Your task to perform on an android device: Go to CNN.com Image 0: 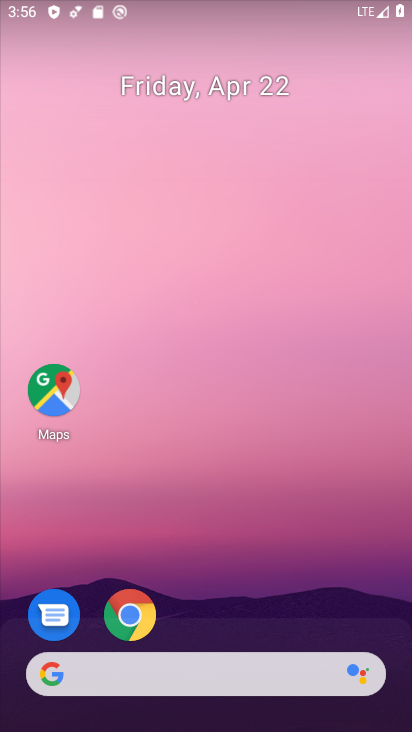
Step 0: click (137, 614)
Your task to perform on an android device: Go to CNN.com Image 1: 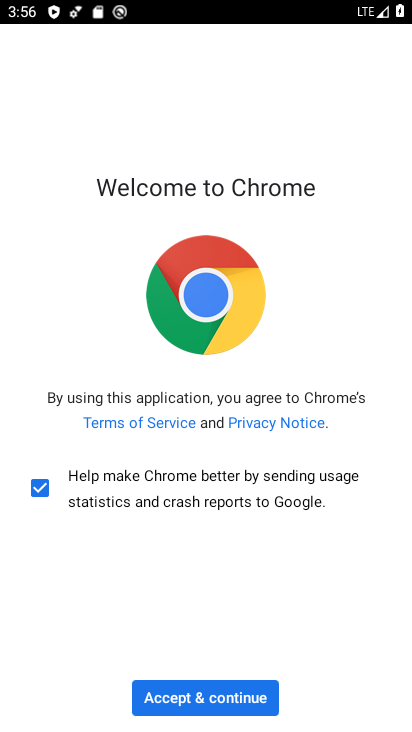
Step 1: click (209, 691)
Your task to perform on an android device: Go to CNN.com Image 2: 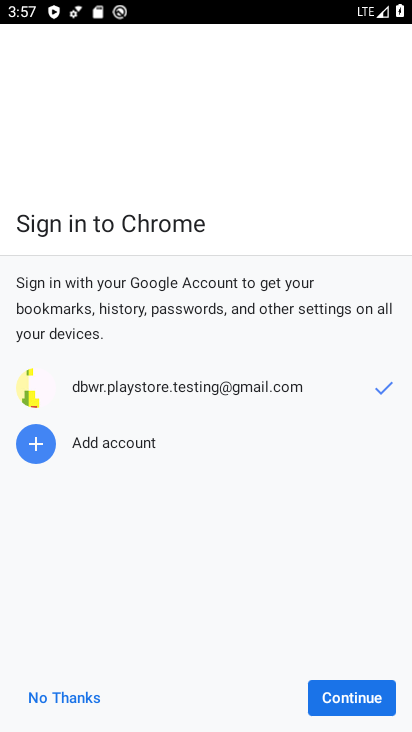
Step 2: click (358, 692)
Your task to perform on an android device: Go to CNN.com Image 3: 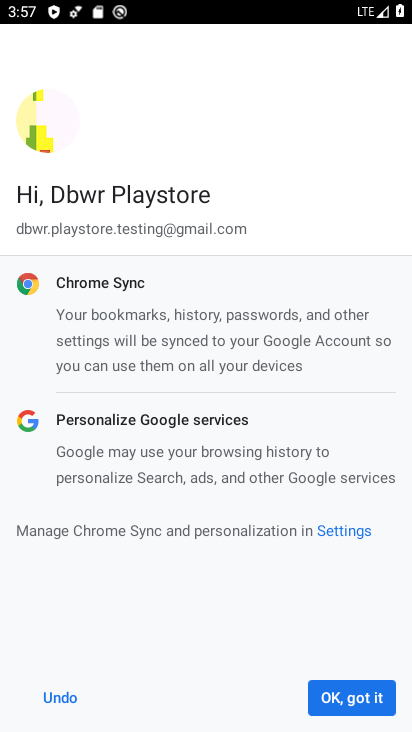
Step 3: click (357, 691)
Your task to perform on an android device: Go to CNN.com Image 4: 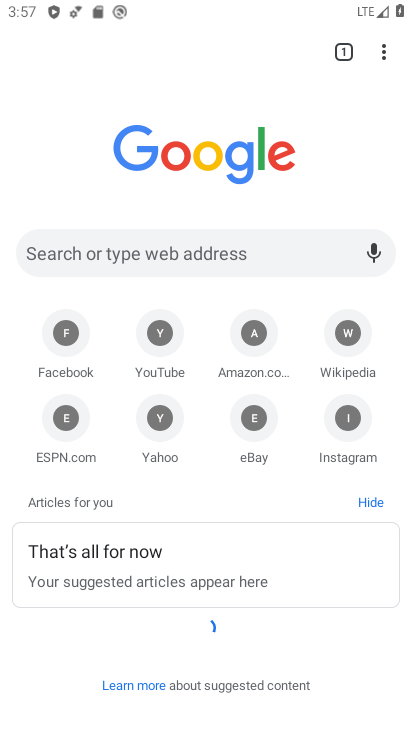
Step 4: click (221, 250)
Your task to perform on an android device: Go to CNN.com Image 5: 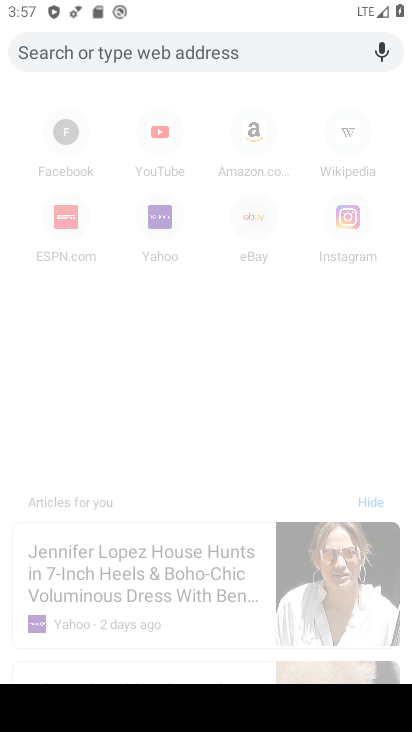
Step 5: type "cnn.com"
Your task to perform on an android device: Go to CNN.com Image 6: 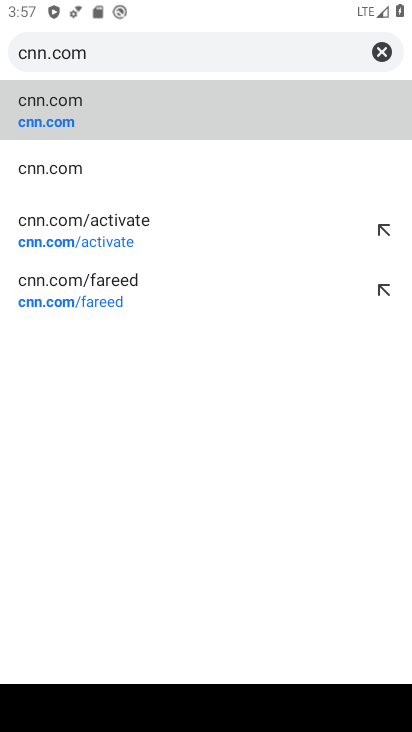
Step 6: click (130, 102)
Your task to perform on an android device: Go to CNN.com Image 7: 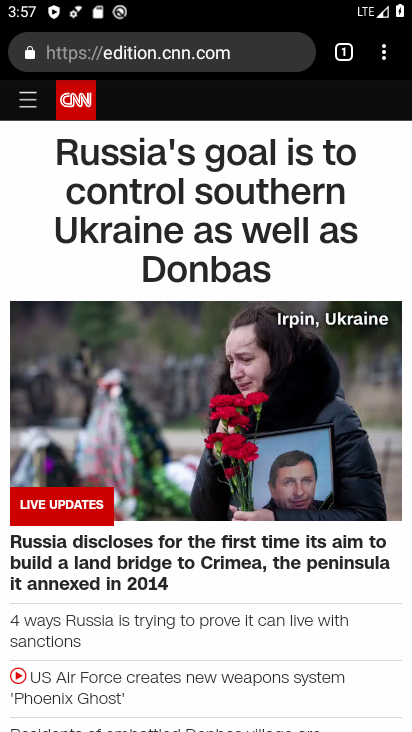
Step 7: task complete